Your task to perform on an android device: check data usage Image 0: 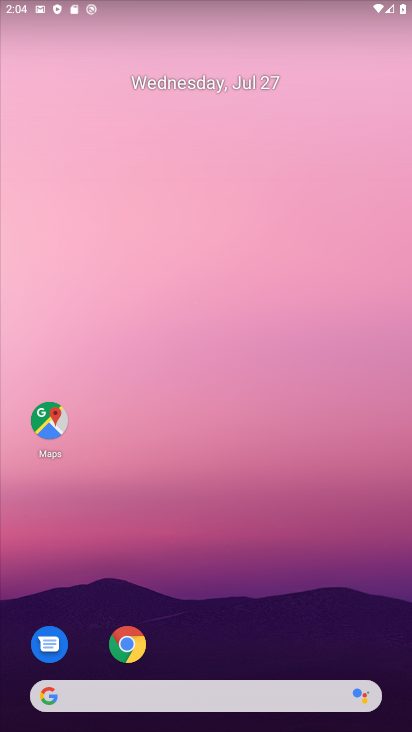
Step 0: drag from (315, 43) to (323, 0)
Your task to perform on an android device: check data usage Image 1: 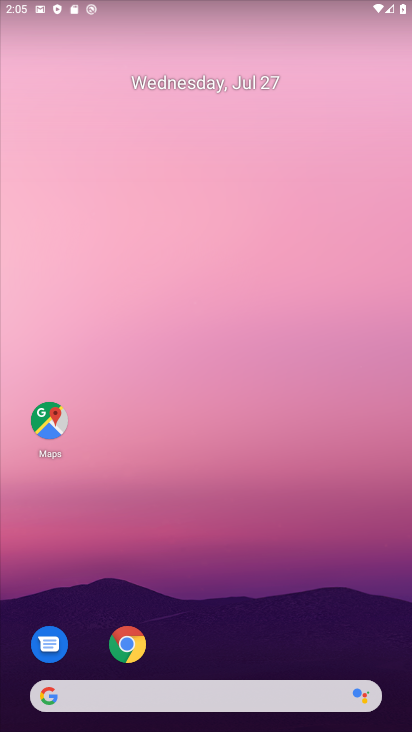
Step 1: drag from (236, 638) to (282, 0)
Your task to perform on an android device: check data usage Image 2: 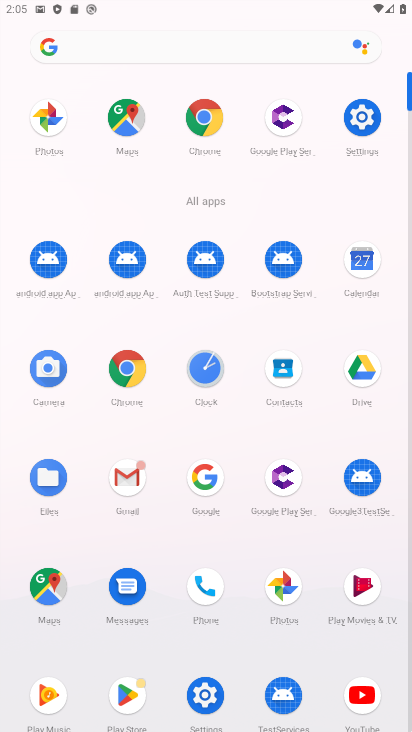
Step 2: click (207, 688)
Your task to perform on an android device: check data usage Image 3: 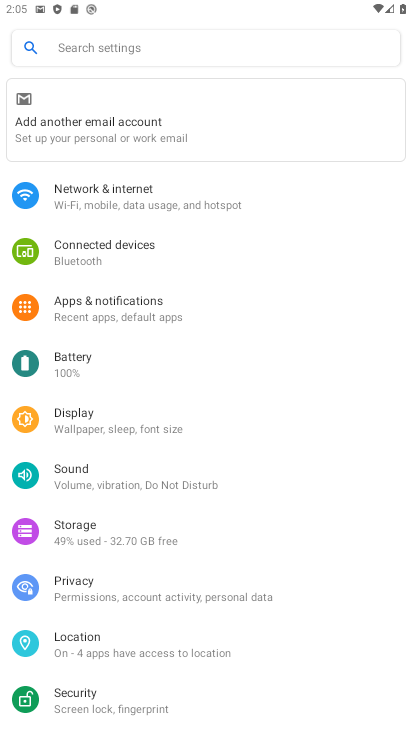
Step 3: click (120, 202)
Your task to perform on an android device: check data usage Image 4: 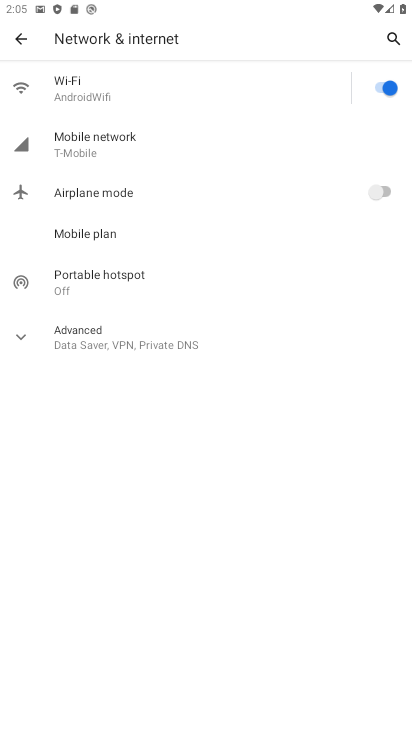
Step 4: click (109, 141)
Your task to perform on an android device: check data usage Image 5: 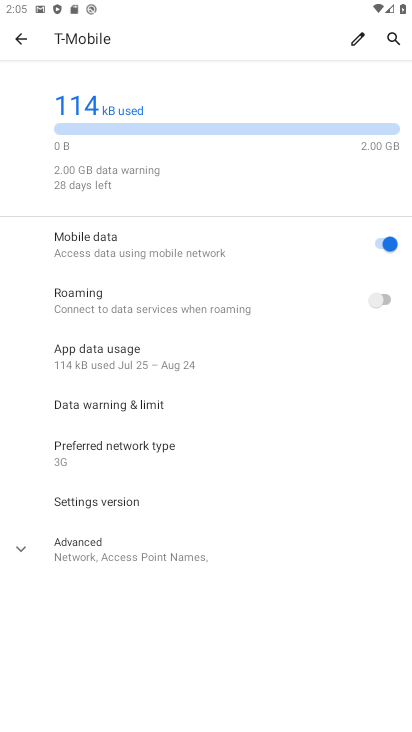
Step 5: click (120, 367)
Your task to perform on an android device: check data usage Image 6: 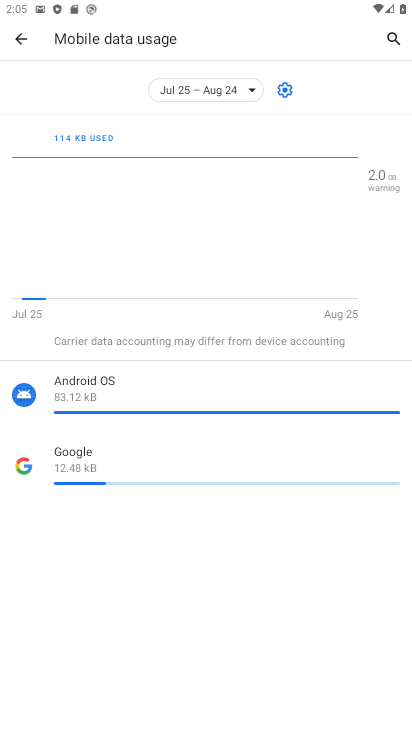
Step 6: task complete